Your task to perform on an android device: open chrome privacy settings Image 0: 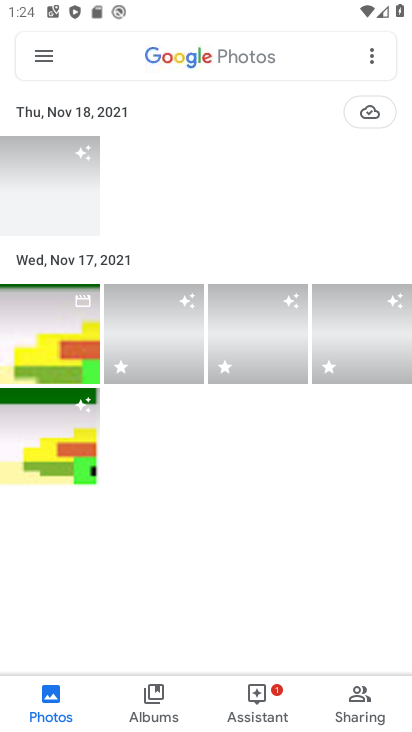
Step 0: press back button
Your task to perform on an android device: open chrome privacy settings Image 1: 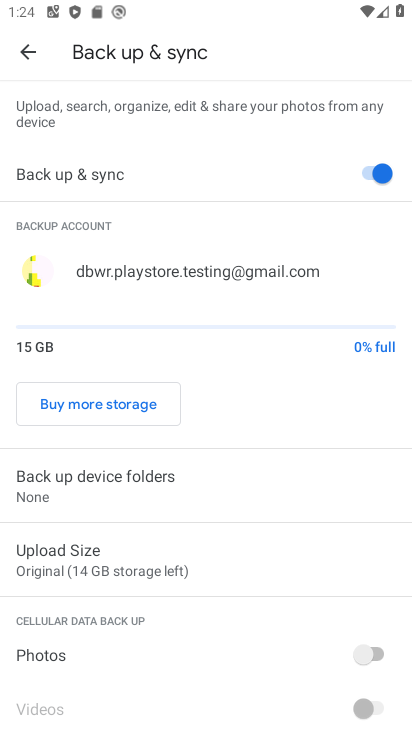
Step 1: press home button
Your task to perform on an android device: open chrome privacy settings Image 2: 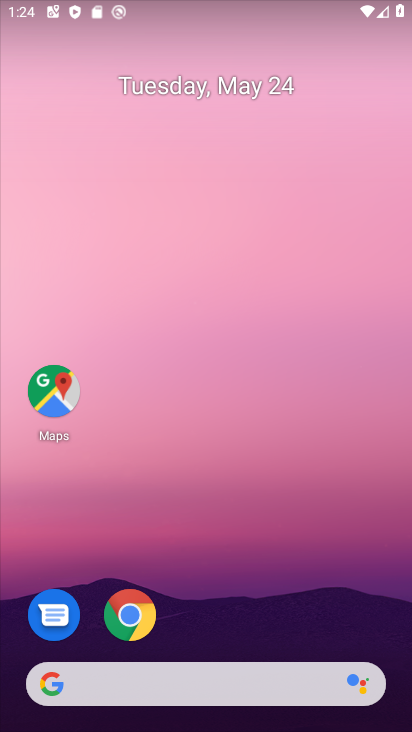
Step 2: click (135, 609)
Your task to perform on an android device: open chrome privacy settings Image 3: 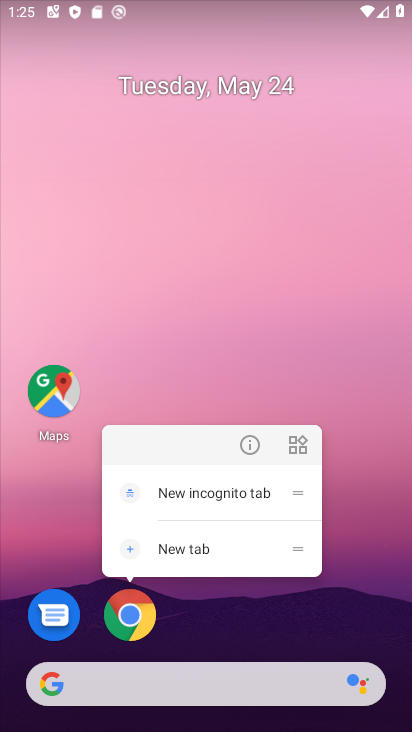
Step 3: click (128, 611)
Your task to perform on an android device: open chrome privacy settings Image 4: 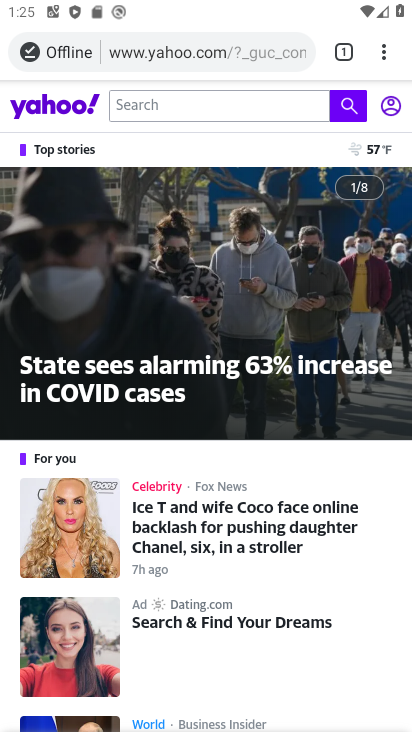
Step 4: drag from (380, 47) to (214, 587)
Your task to perform on an android device: open chrome privacy settings Image 5: 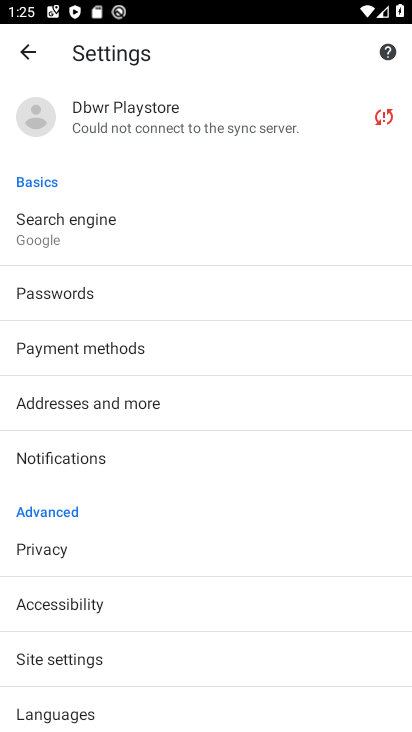
Step 5: click (50, 545)
Your task to perform on an android device: open chrome privacy settings Image 6: 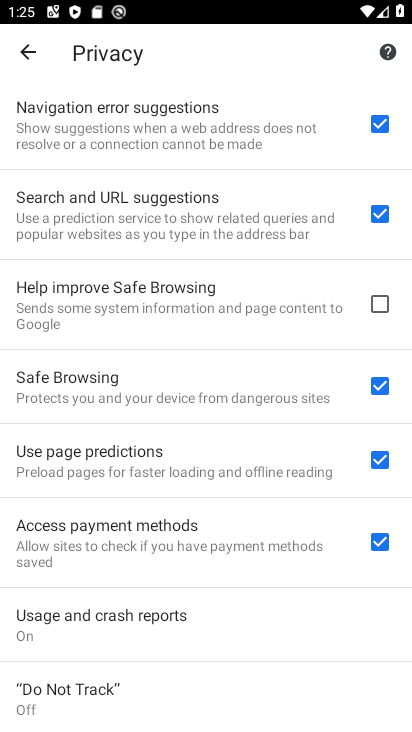
Step 6: task complete